Your task to perform on an android device: Do I have any events today? Image 0: 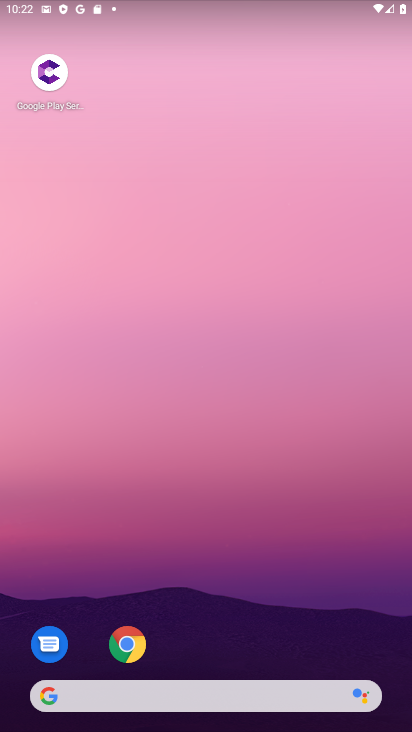
Step 0: drag from (270, 658) to (259, 334)
Your task to perform on an android device: Do I have any events today? Image 1: 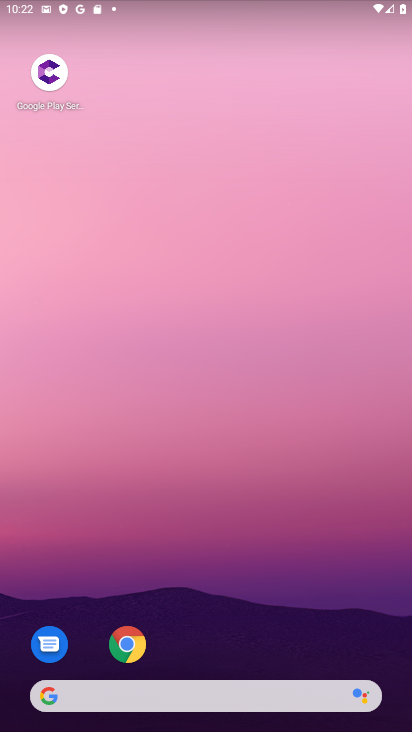
Step 1: drag from (218, 670) to (229, 293)
Your task to perform on an android device: Do I have any events today? Image 2: 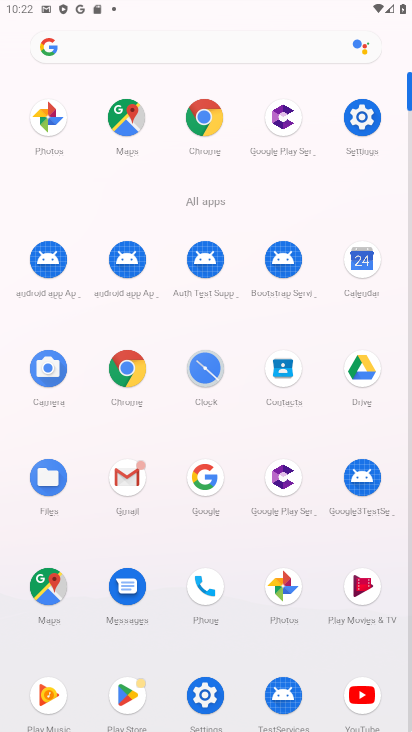
Step 2: click (364, 257)
Your task to perform on an android device: Do I have any events today? Image 3: 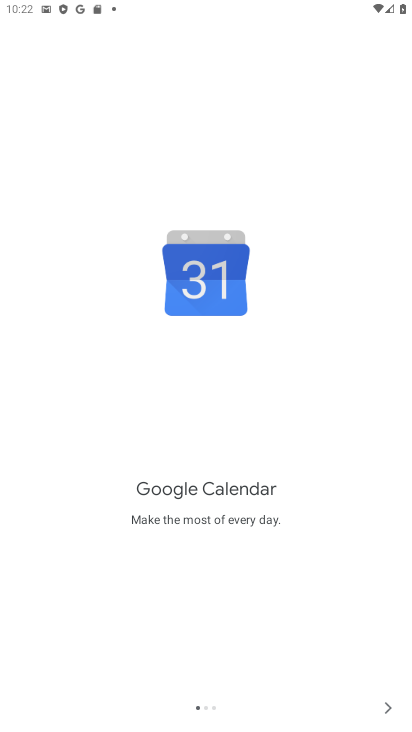
Step 3: click (379, 701)
Your task to perform on an android device: Do I have any events today? Image 4: 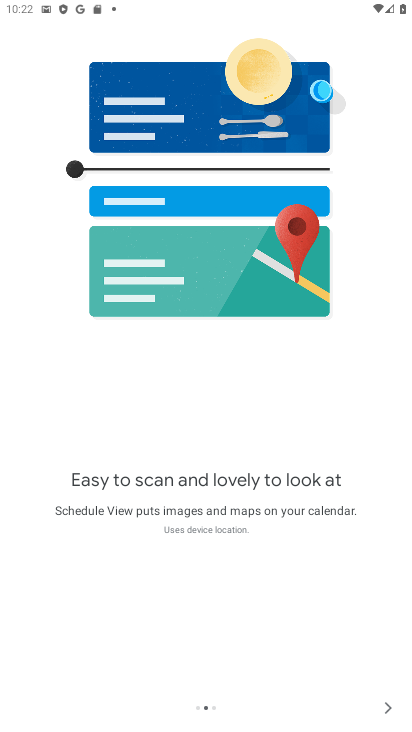
Step 4: click (379, 701)
Your task to perform on an android device: Do I have any events today? Image 5: 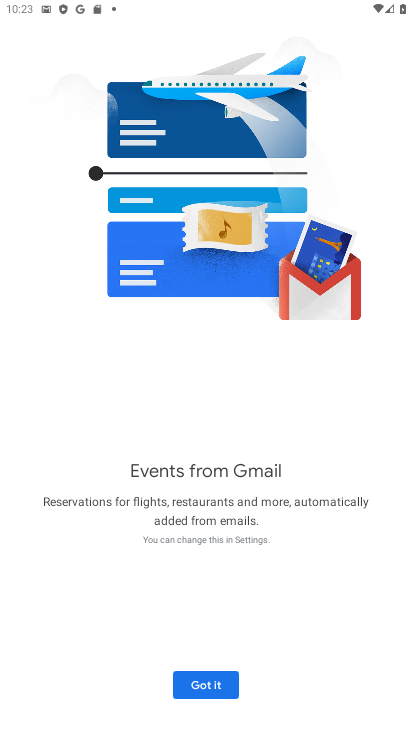
Step 5: click (220, 677)
Your task to perform on an android device: Do I have any events today? Image 6: 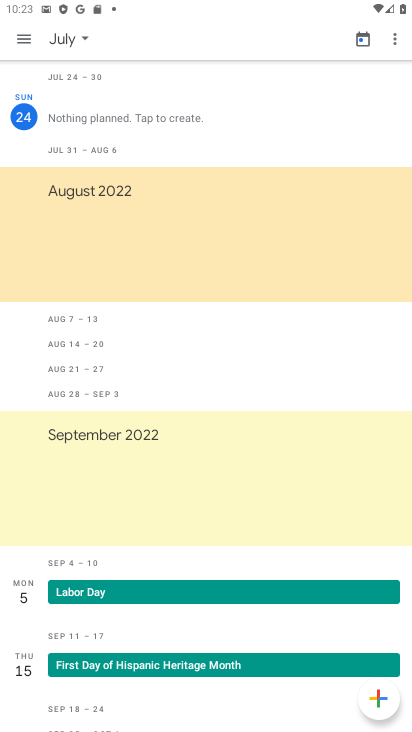
Step 6: click (18, 33)
Your task to perform on an android device: Do I have any events today? Image 7: 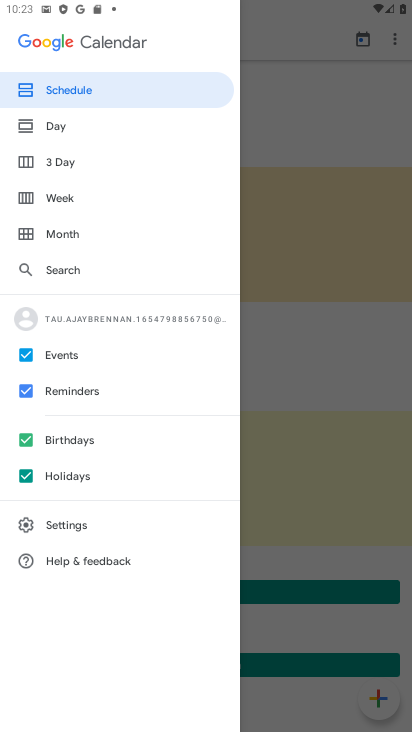
Step 7: click (62, 229)
Your task to perform on an android device: Do I have any events today? Image 8: 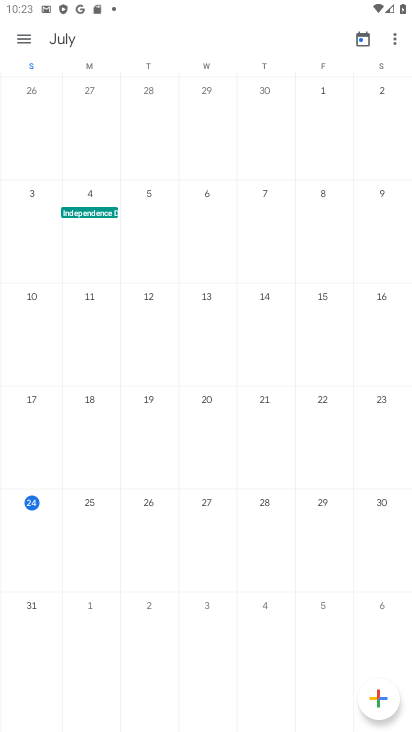
Step 8: click (152, 524)
Your task to perform on an android device: Do I have any events today? Image 9: 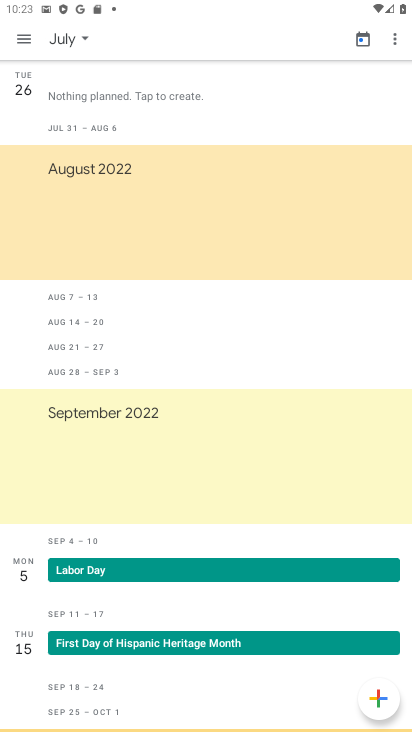
Step 9: task complete